Your task to perform on an android device: Go to notification settings Image 0: 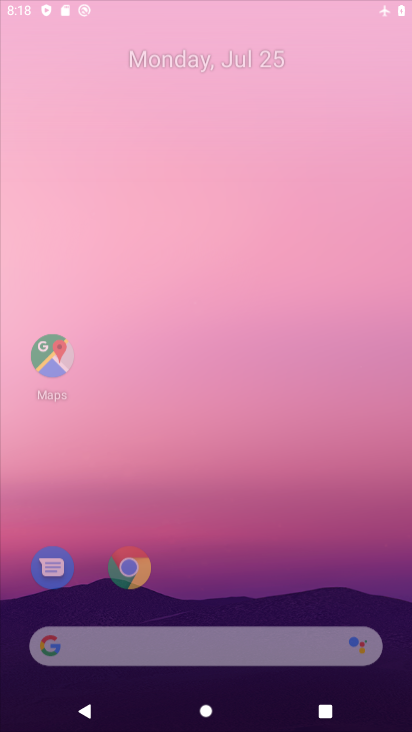
Step 0: click (224, 44)
Your task to perform on an android device: Go to notification settings Image 1: 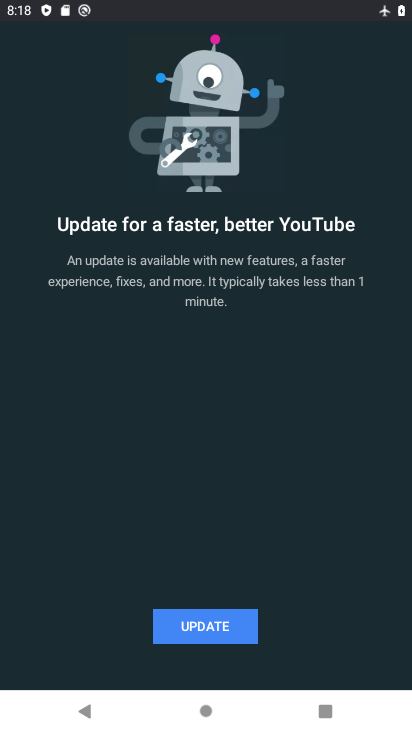
Step 1: drag from (204, 687) to (216, 373)
Your task to perform on an android device: Go to notification settings Image 2: 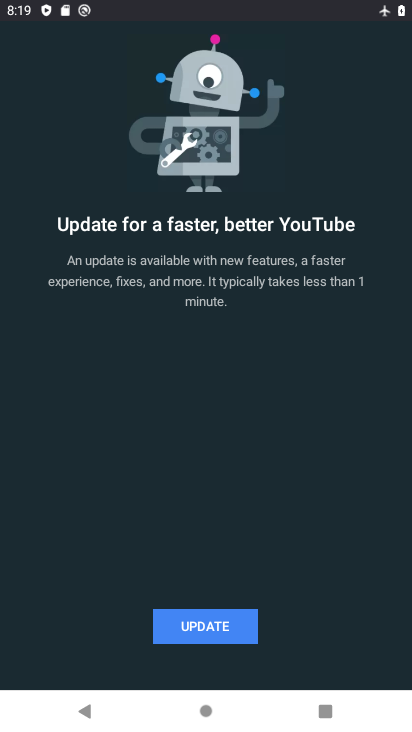
Step 2: press home button
Your task to perform on an android device: Go to notification settings Image 3: 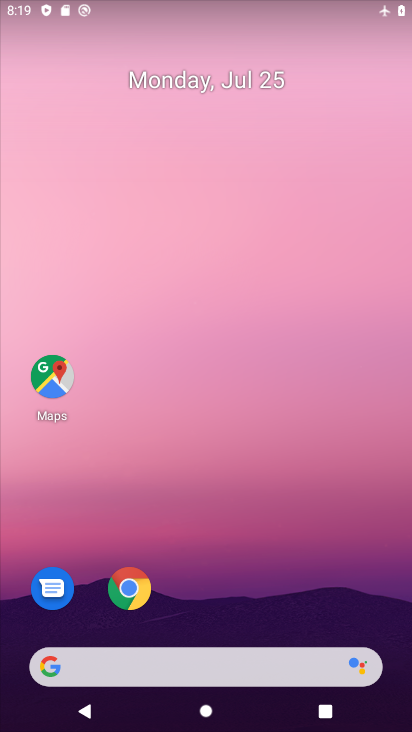
Step 3: drag from (206, 653) to (325, 41)
Your task to perform on an android device: Go to notification settings Image 4: 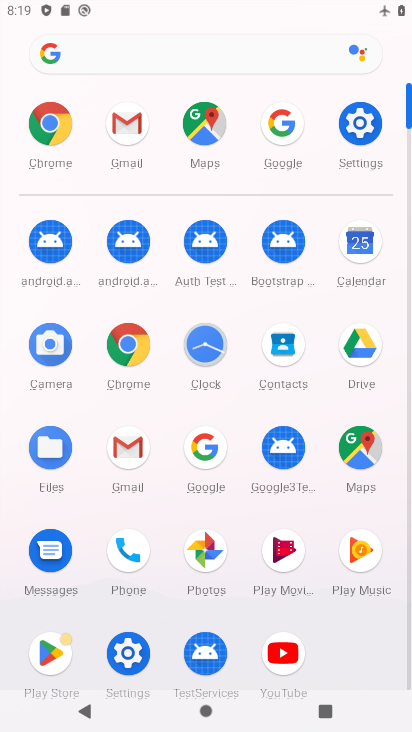
Step 4: click (139, 655)
Your task to perform on an android device: Go to notification settings Image 5: 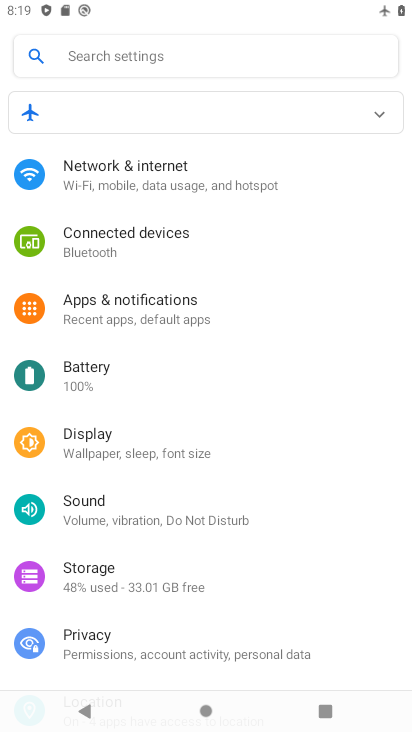
Step 5: click (206, 324)
Your task to perform on an android device: Go to notification settings Image 6: 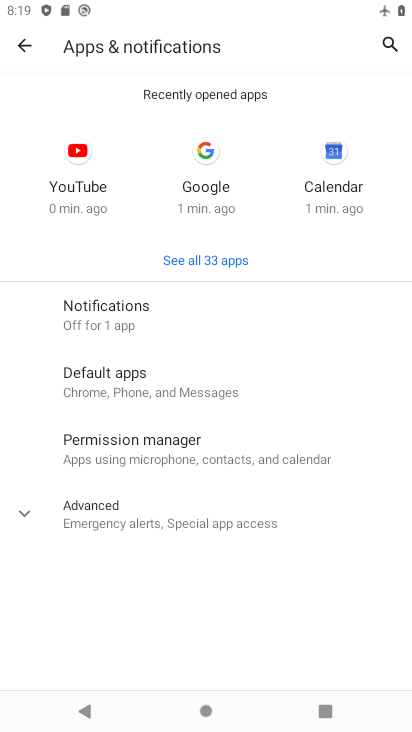
Step 6: click (165, 523)
Your task to perform on an android device: Go to notification settings Image 7: 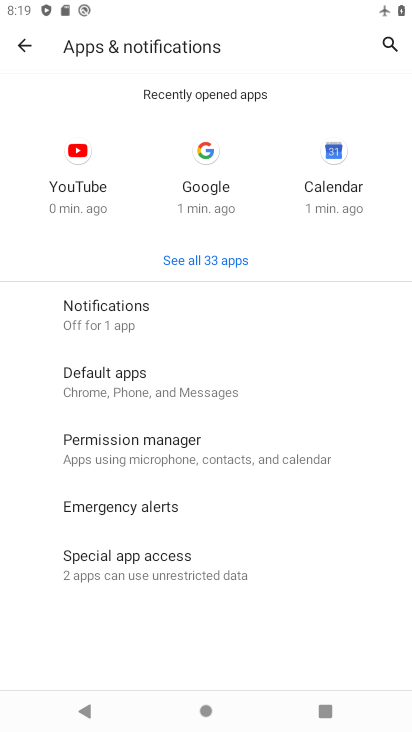
Step 7: task complete